Your task to perform on an android device: Go to location settings Image 0: 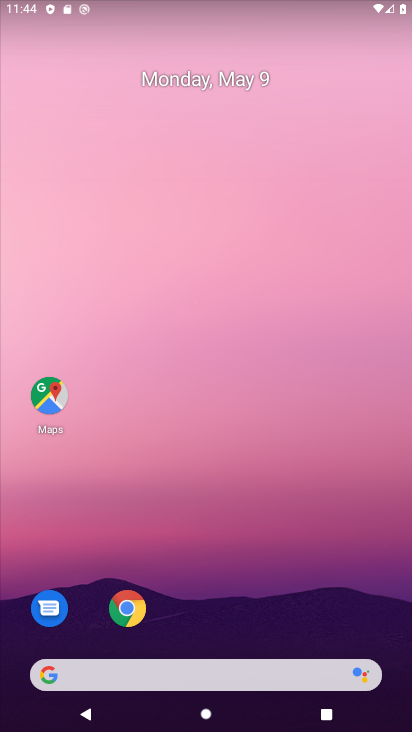
Step 0: drag from (236, 383) to (236, 10)
Your task to perform on an android device: Go to location settings Image 1: 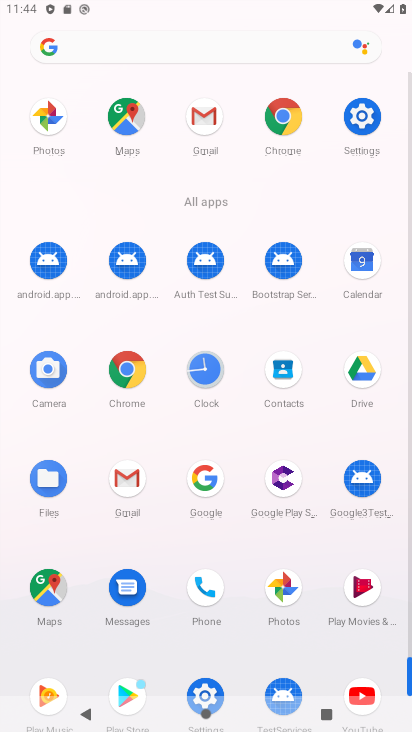
Step 1: click (200, 690)
Your task to perform on an android device: Go to location settings Image 2: 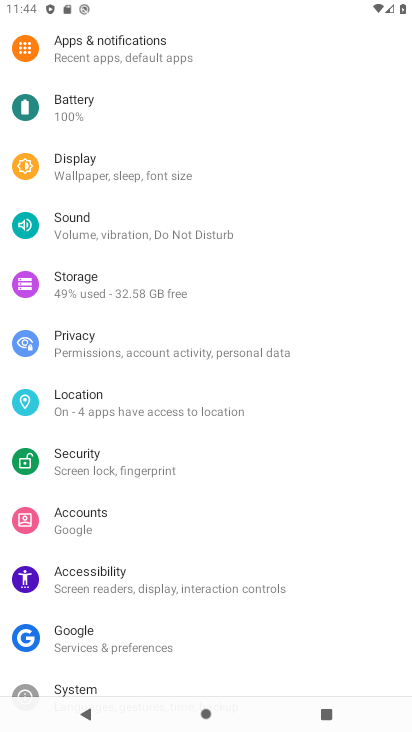
Step 2: click (104, 409)
Your task to perform on an android device: Go to location settings Image 3: 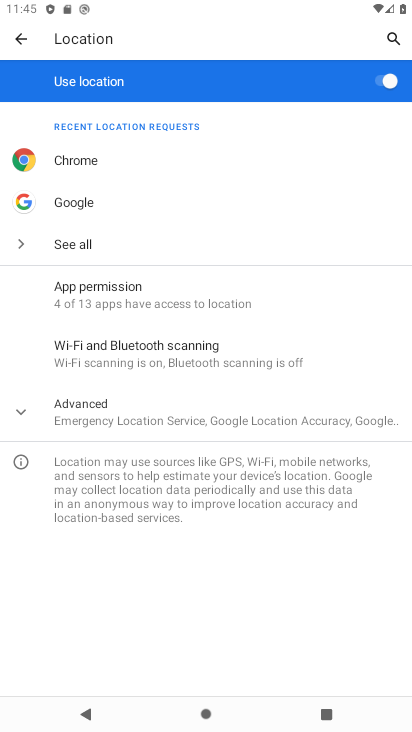
Step 3: click (66, 410)
Your task to perform on an android device: Go to location settings Image 4: 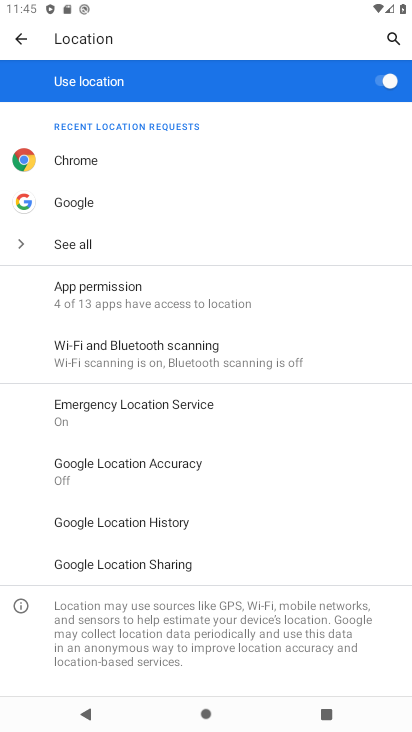
Step 4: task complete